Your task to perform on an android device: Go to battery settings Image 0: 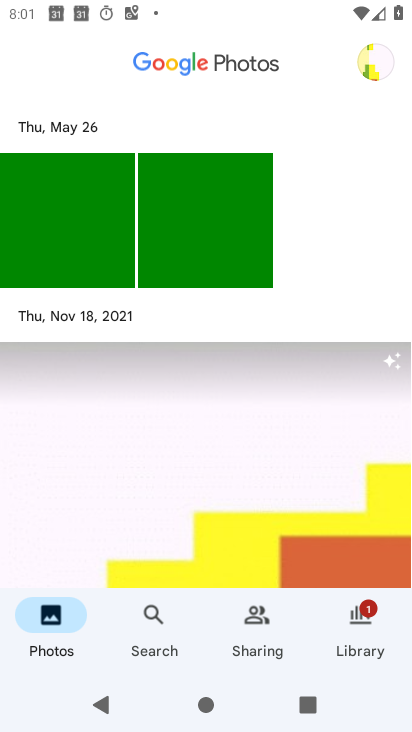
Step 0: press home button
Your task to perform on an android device: Go to battery settings Image 1: 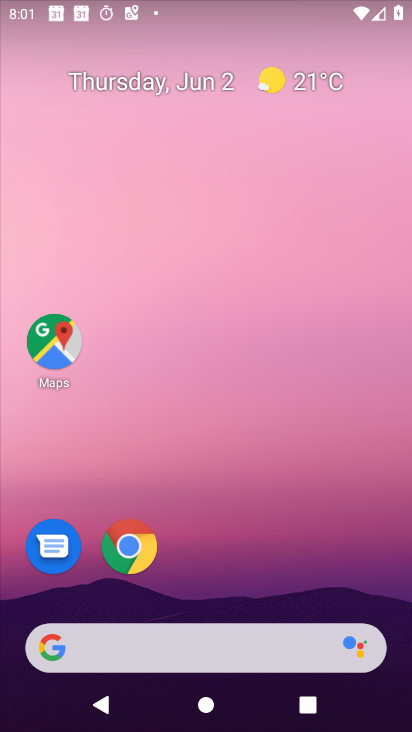
Step 1: drag from (340, 566) to (260, 66)
Your task to perform on an android device: Go to battery settings Image 2: 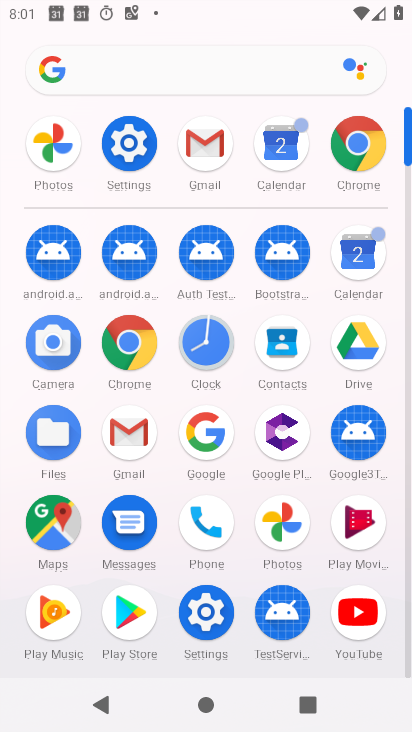
Step 2: click (209, 609)
Your task to perform on an android device: Go to battery settings Image 3: 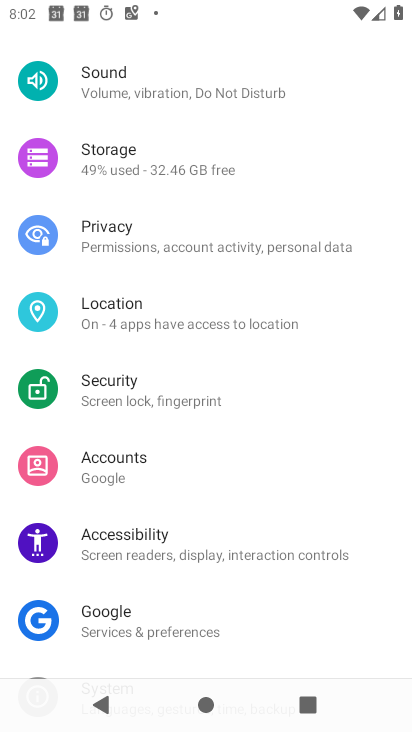
Step 3: drag from (228, 246) to (194, 550)
Your task to perform on an android device: Go to battery settings Image 4: 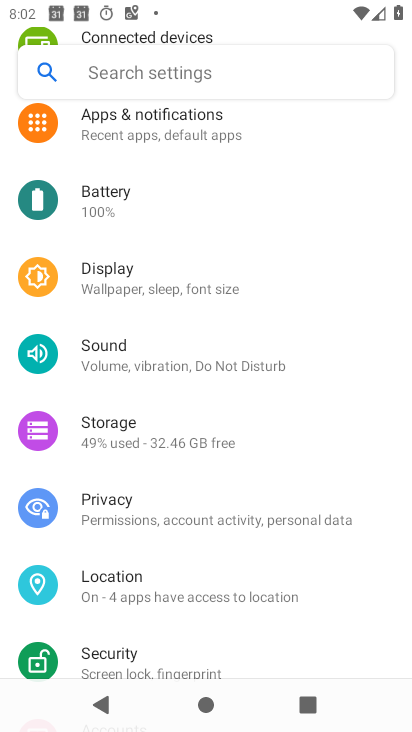
Step 4: click (138, 184)
Your task to perform on an android device: Go to battery settings Image 5: 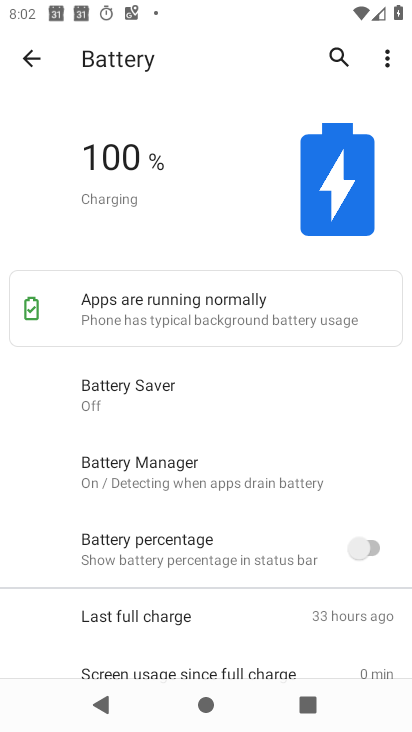
Step 5: task complete